Your task to perform on an android device: clear all cookies in the chrome app Image 0: 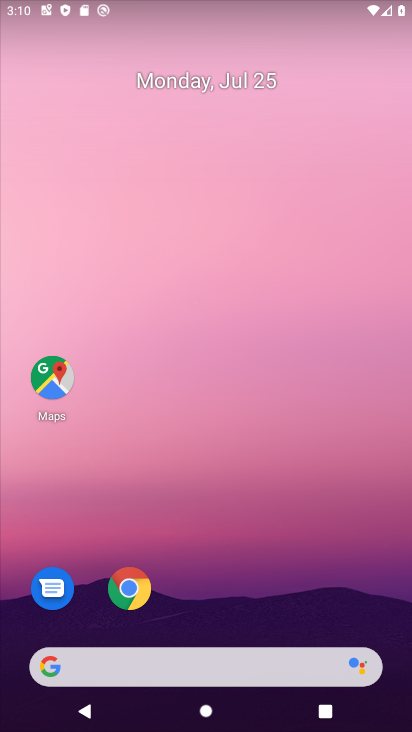
Step 0: drag from (338, 603) to (257, 61)
Your task to perform on an android device: clear all cookies in the chrome app Image 1: 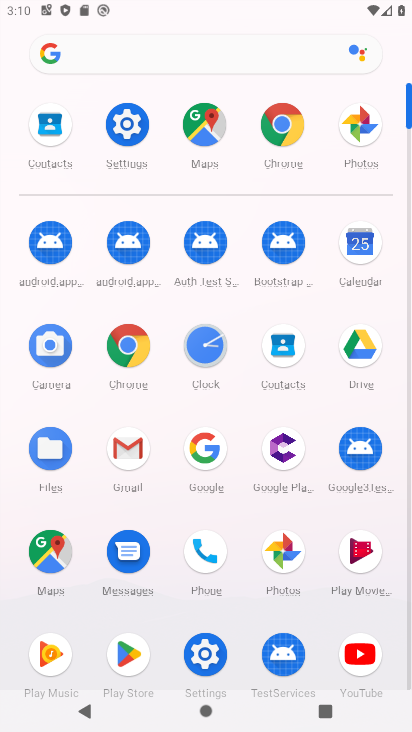
Step 1: click (125, 349)
Your task to perform on an android device: clear all cookies in the chrome app Image 2: 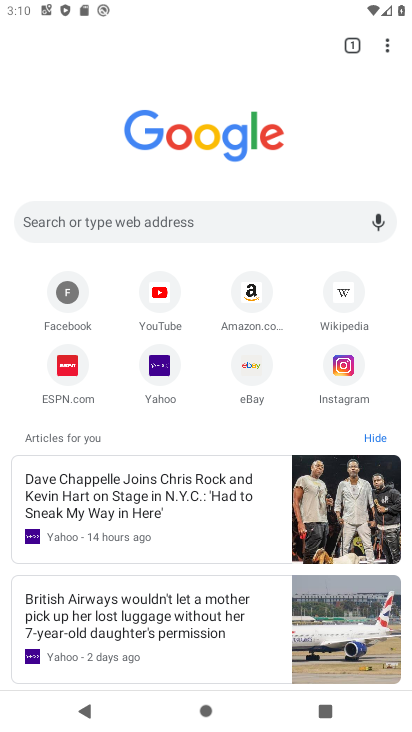
Step 2: task complete